Your task to perform on an android device: toggle translation in the chrome app Image 0: 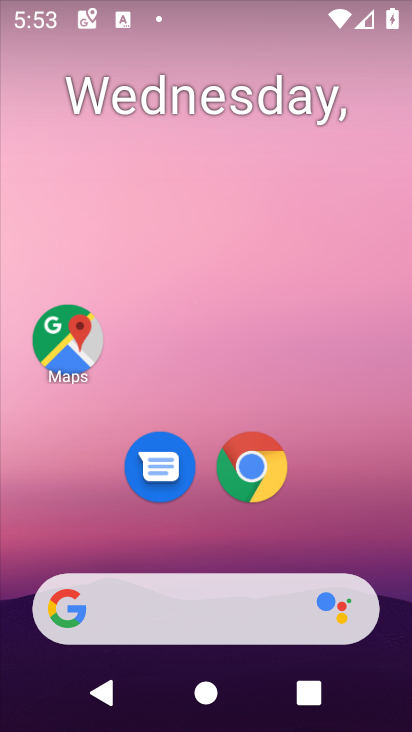
Step 0: click (256, 448)
Your task to perform on an android device: toggle translation in the chrome app Image 1: 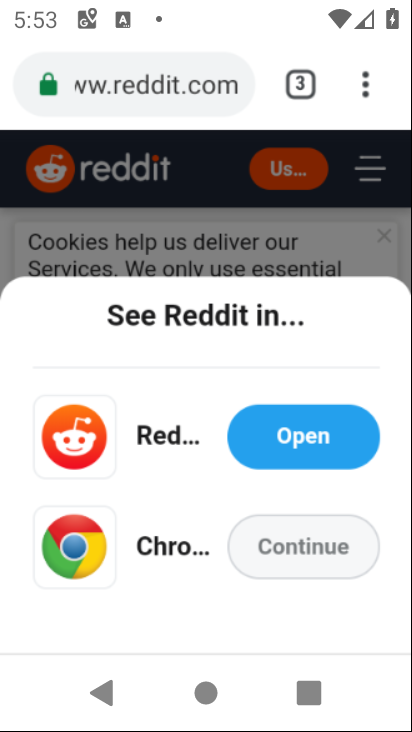
Step 1: click (351, 94)
Your task to perform on an android device: toggle translation in the chrome app Image 2: 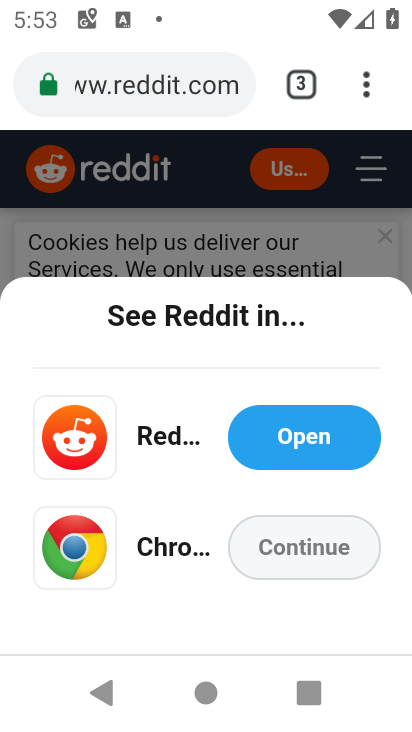
Step 2: click (371, 80)
Your task to perform on an android device: toggle translation in the chrome app Image 3: 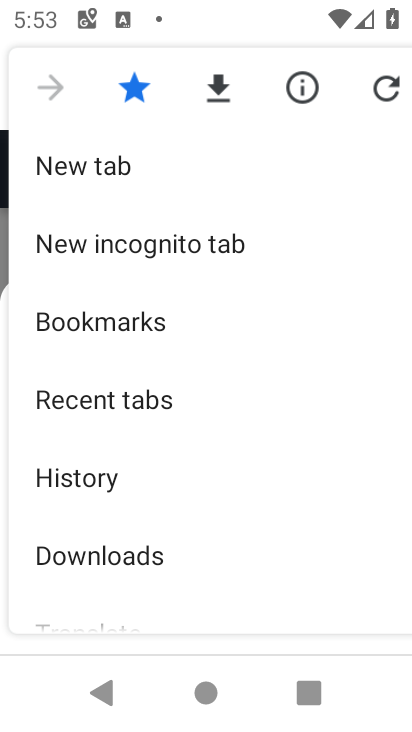
Step 3: drag from (225, 532) to (245, 164)
Your task to perform on an android device: toggle translation in the chrome app Image 4: 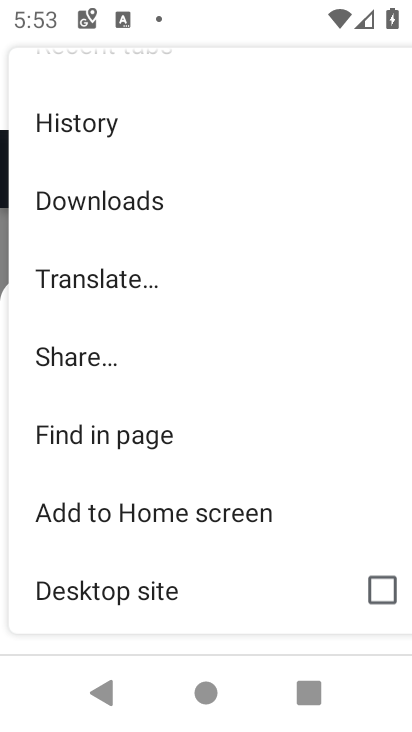
Step 4: drag from (166, 518) to (196, 188)
Your task to perform on an android device: toggle translation in the chrome app Image 5: 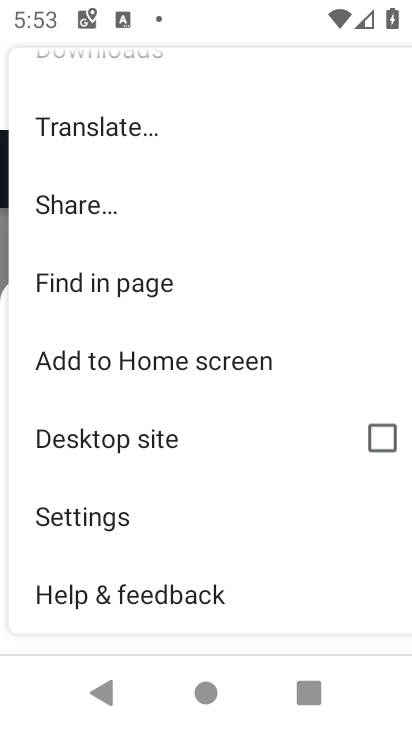
Step 5: click (118, 520)
Your task to perform on an android device: toggle translation in the chrome app Image 6: 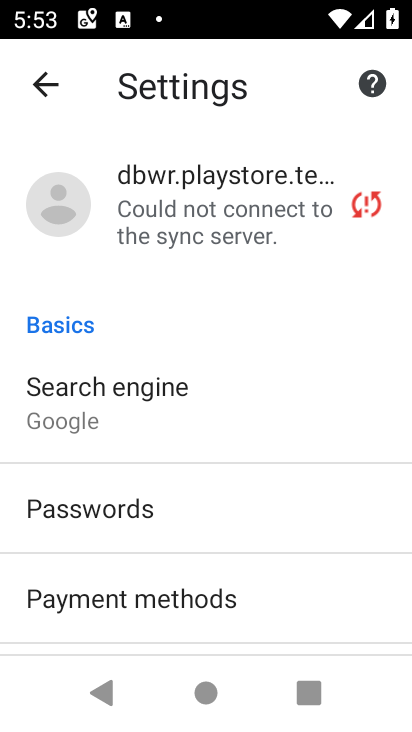
Step 6: drag from (158, 534) to (235, 24)
Your task to perform on an android device: toggle translation in the chrome app Image 7: 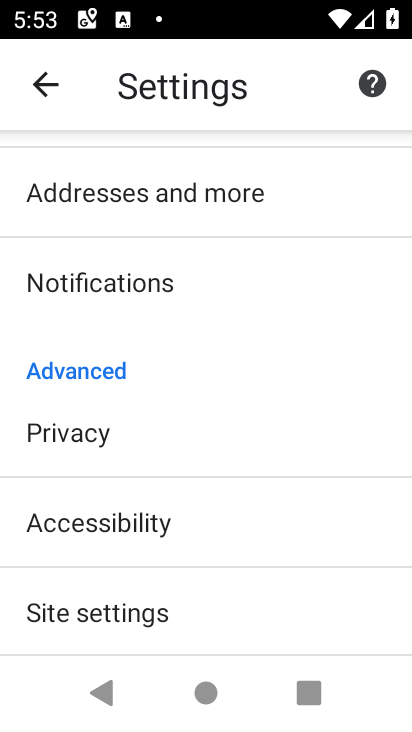
Step 7: drag from (210, 546) to (245, 256)
Your task to perform on an android device: toggle translation in the chrome app Image 8: 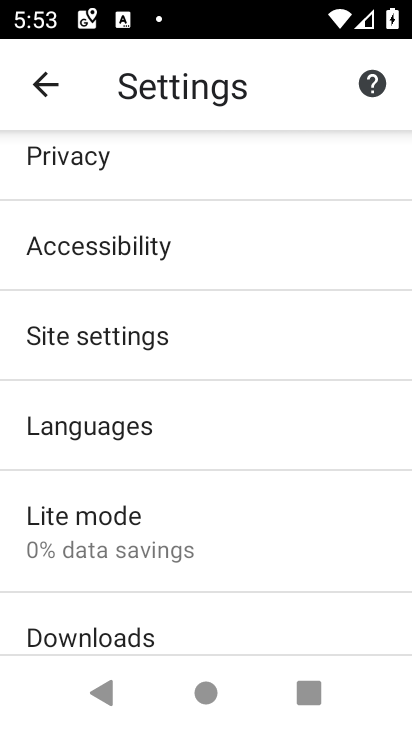
Step 8: click (126, 422)
Your task to perform on an android device: toggle translation in the chrome app Image 9: 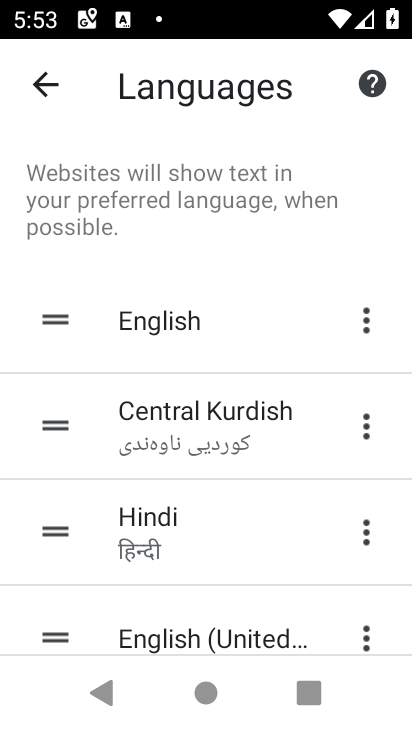
Step 9: drag from (199, 492) to (281, 114)
Your task to perform on an android device: toggle translation in the chrome app Image 10: 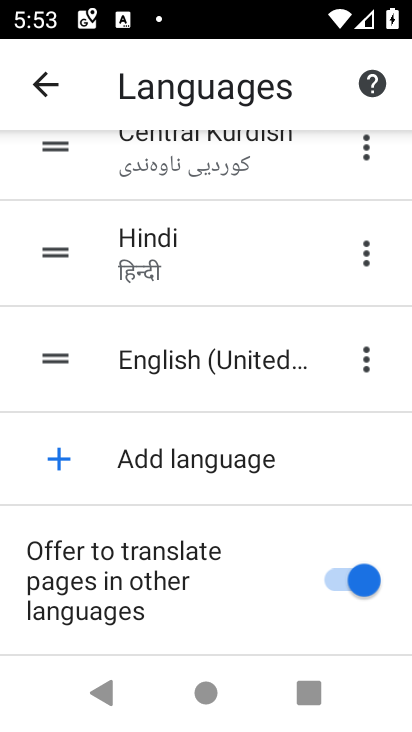
Step 10: click (334, 577)
Your task to perform on an android device: toggle translation in the chrome app Image 11: 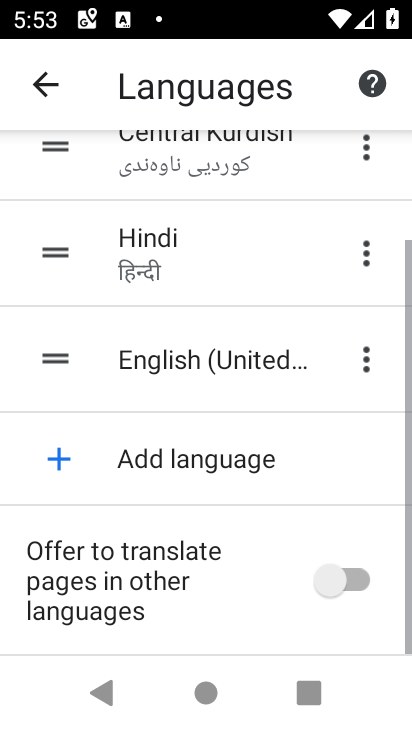
Step 11: task complete